Your task to perform on an android device: Toggle the flashlight Image 0: 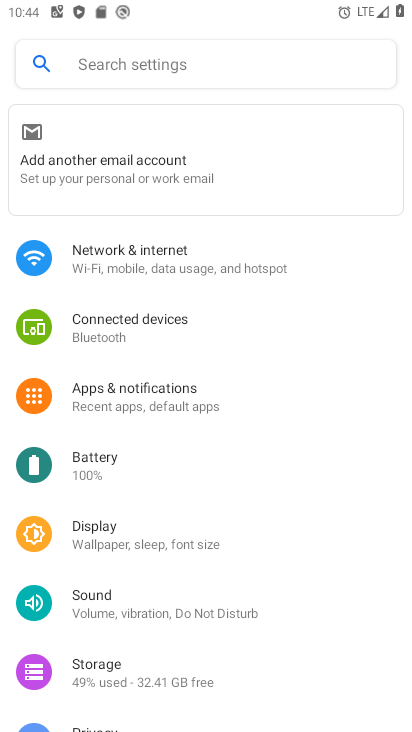
Step 0: drag from (273, 565) to (361, 173)
Your task to perform on an android device: Toggle the flashlight Image 1: 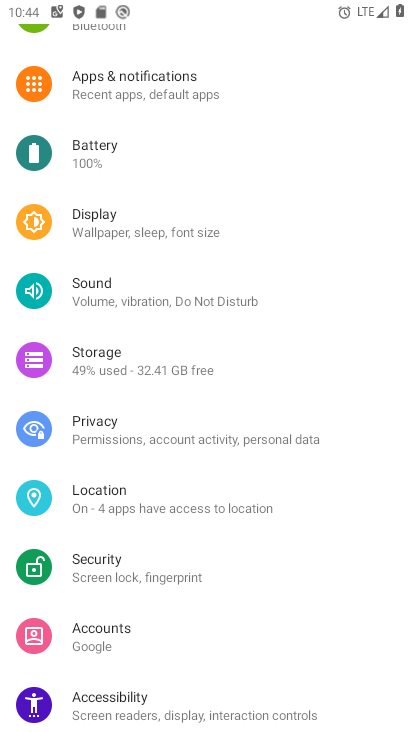
Step 1: task complete